Your task to perform on an android device: Go to ESPN.com Image 0: 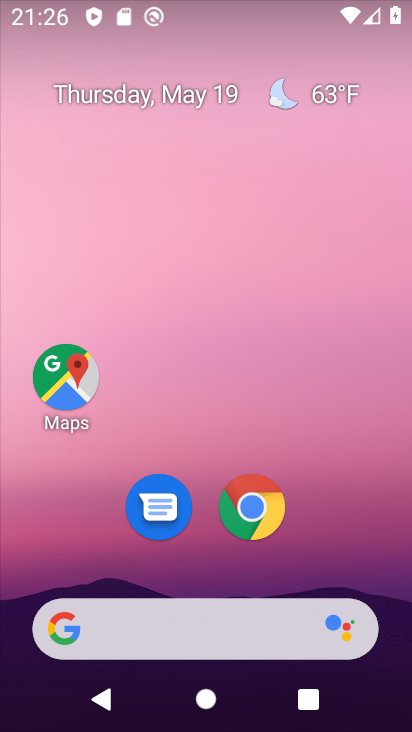
Step 0: click (249, 504)
Your task to perform on an android device: Go to ESPN.com Image 1: 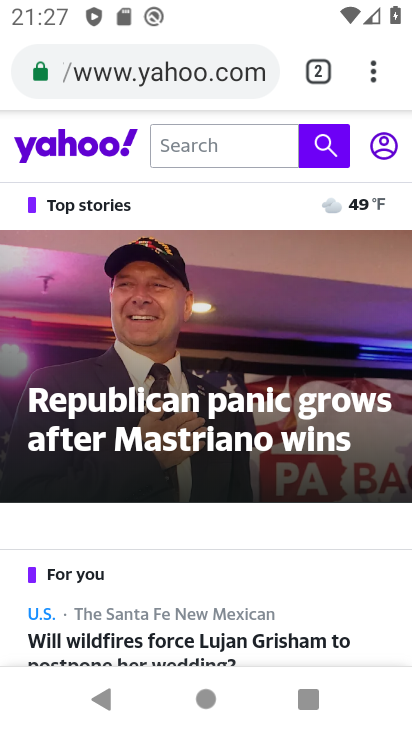
Step 1: click (185, 67)
Your task to perform on an android device: Go to ESPN.com Image 2: 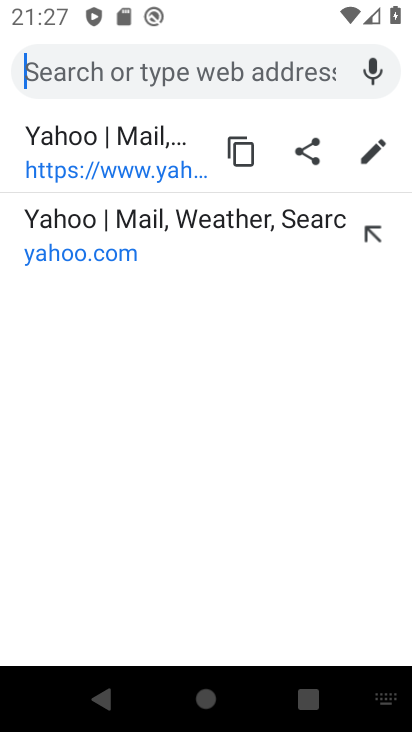
Step 2: type "espn.com"
Your task to perform on an android device: Go to ESPN.com Image 3: 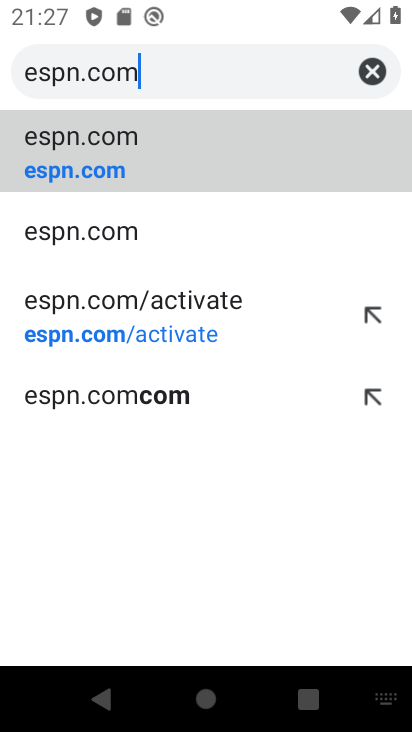
Step 3: click (102, 166)
Your task to perform on an android device: Go to ESPN.com Image 4: 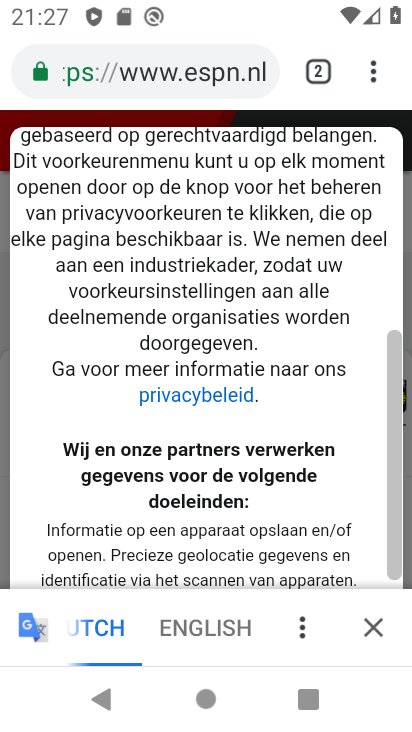
Step 4: click (378, 636)
Your task to perform on an android device: Go to ESPN.com Image 5: 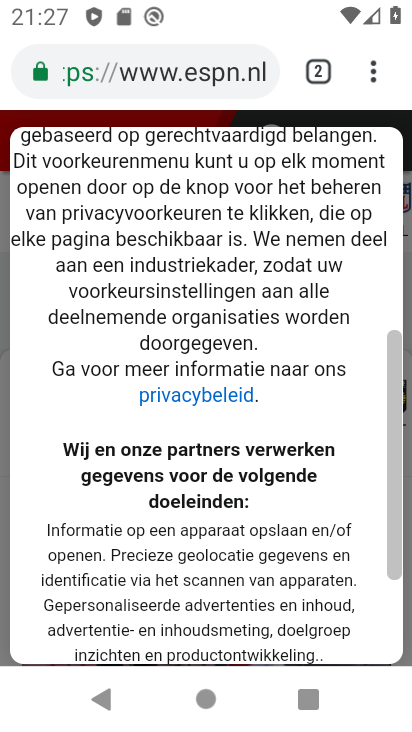
Step 5: drag from (327, 627) to (320, 179)
Your task to perform on an android device: Go to ESPN.com Image 6: 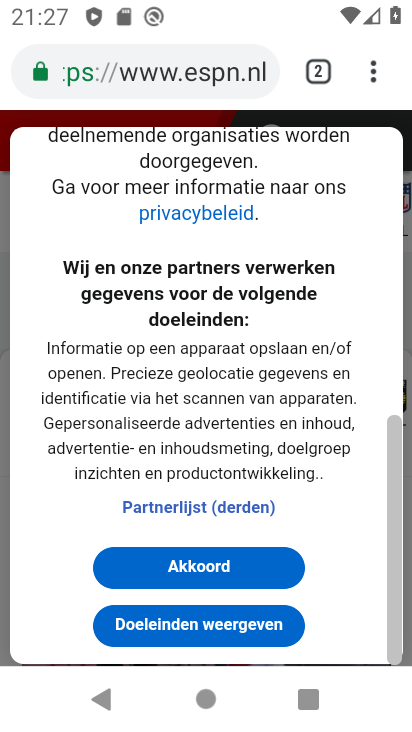
Step 6: click (202, 553)
Your task to perform on an android device: Go to ESPN.com Image 7: 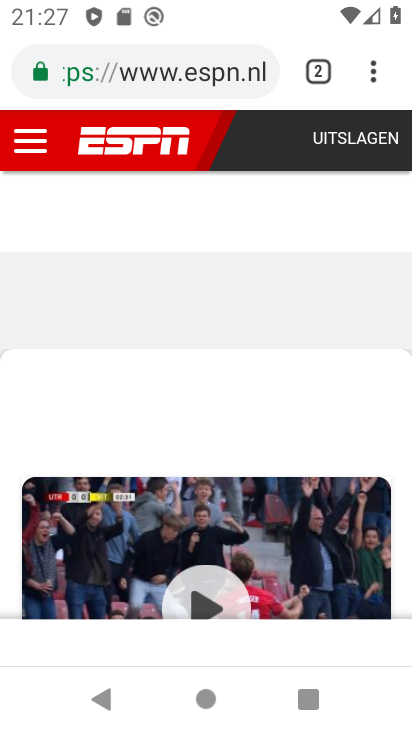
Step 7: task complete